Your task to perform on an android device: Play the new Selena Gomez video on YouTube Image 0: 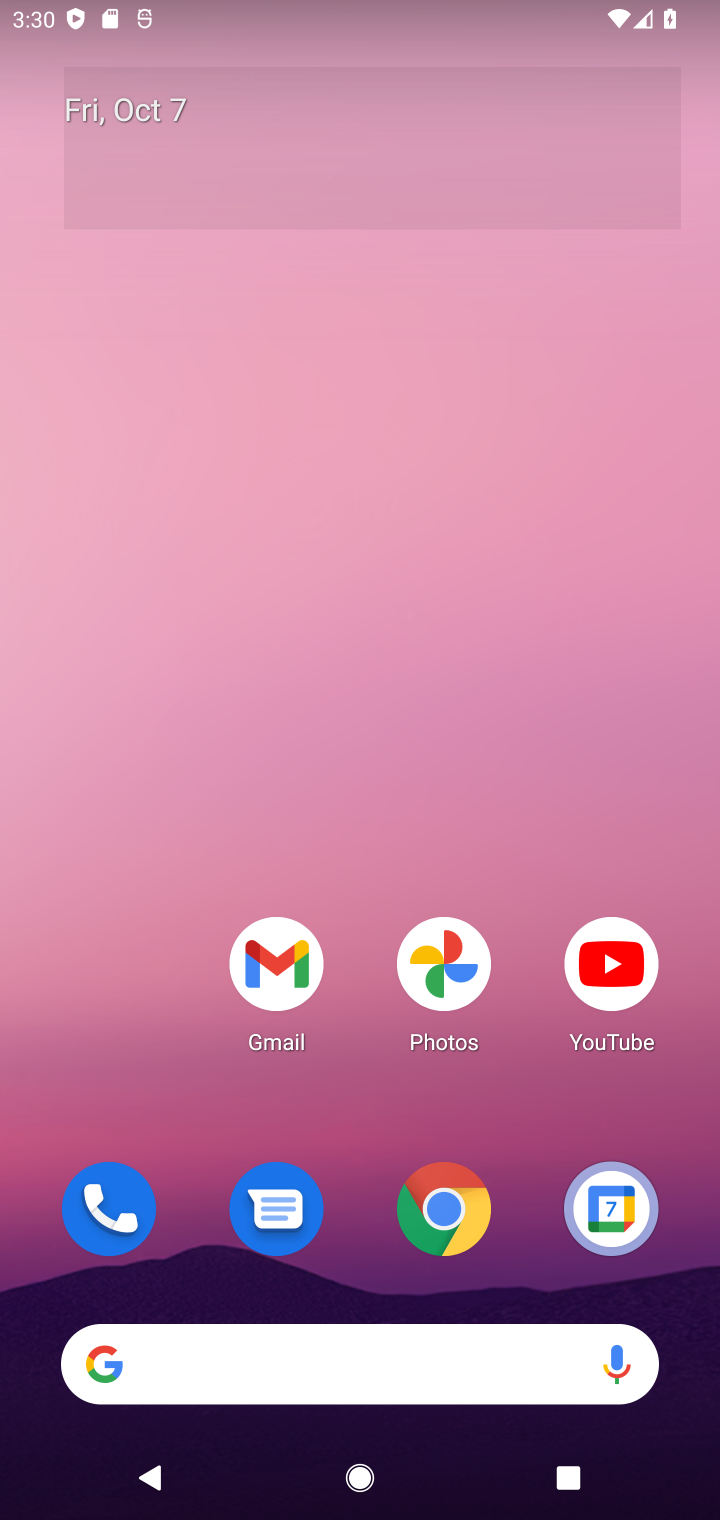
Step 0: press home button
Your task to perform on an android device: Play the new Selena Gomez video on YouTube Image 1: 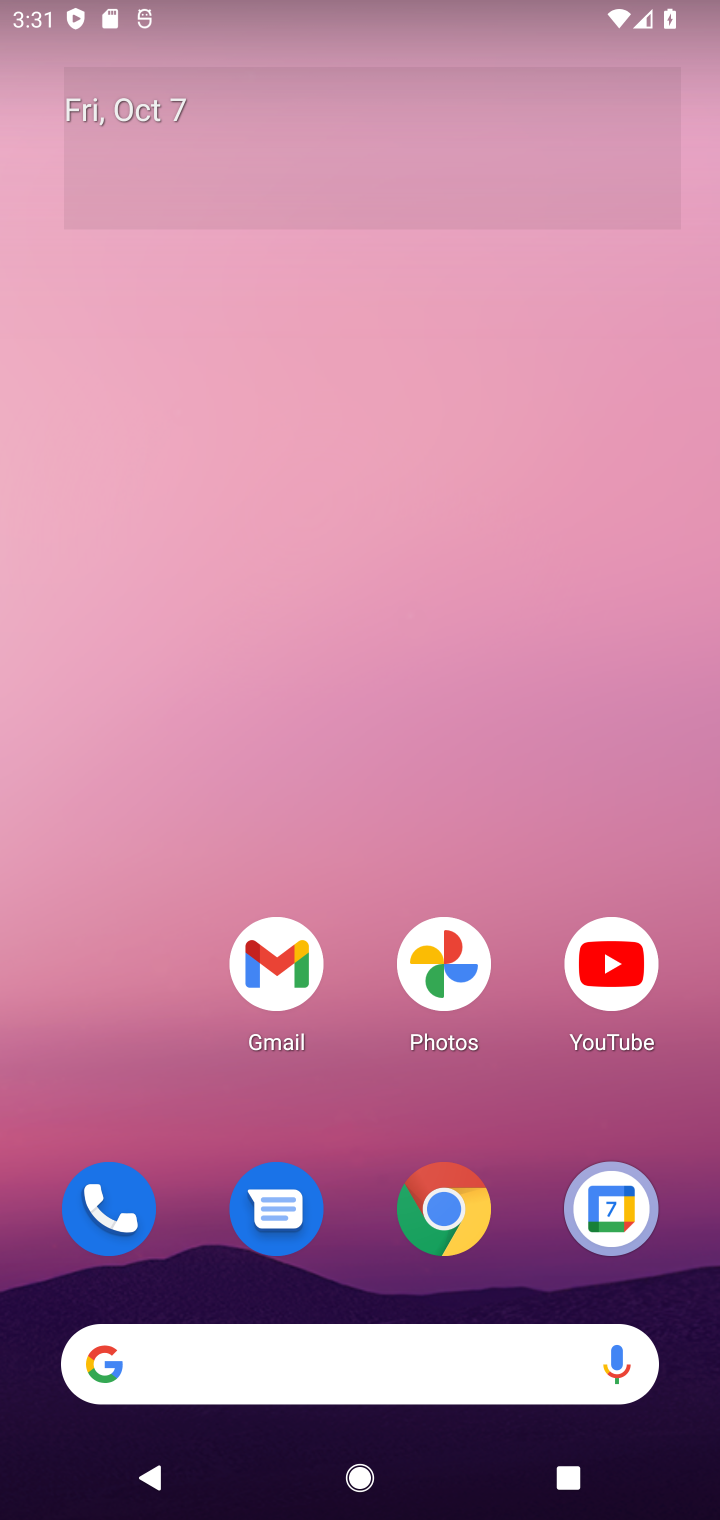
Step 1: drag from (145, 1093) to (102, 137)
Your task to perform on an android device: Play the new Selena Gomez video on YouTube Image 2: 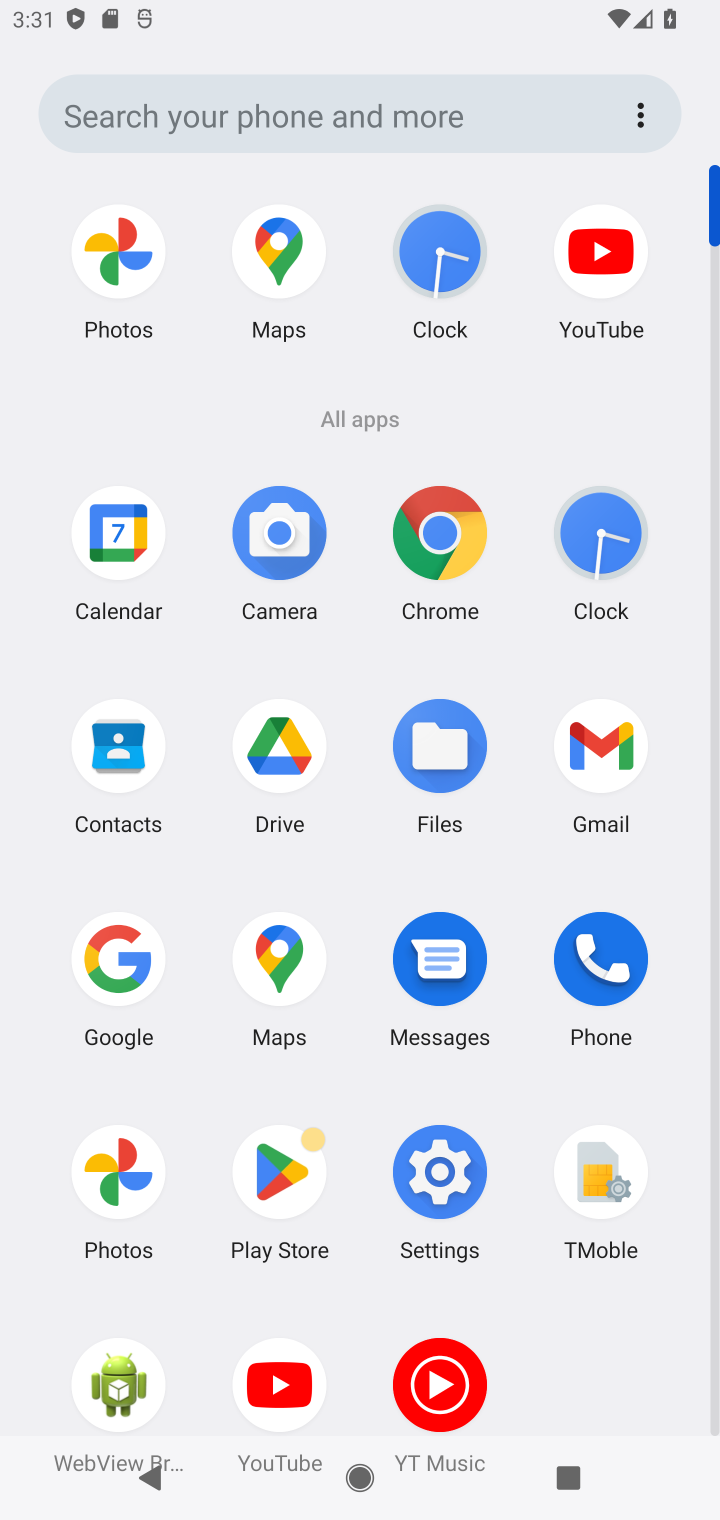
Step 2: click (609, 273)
Your task to perform on an android device: Play the new Selena Gomez video on YouTube Image 3: 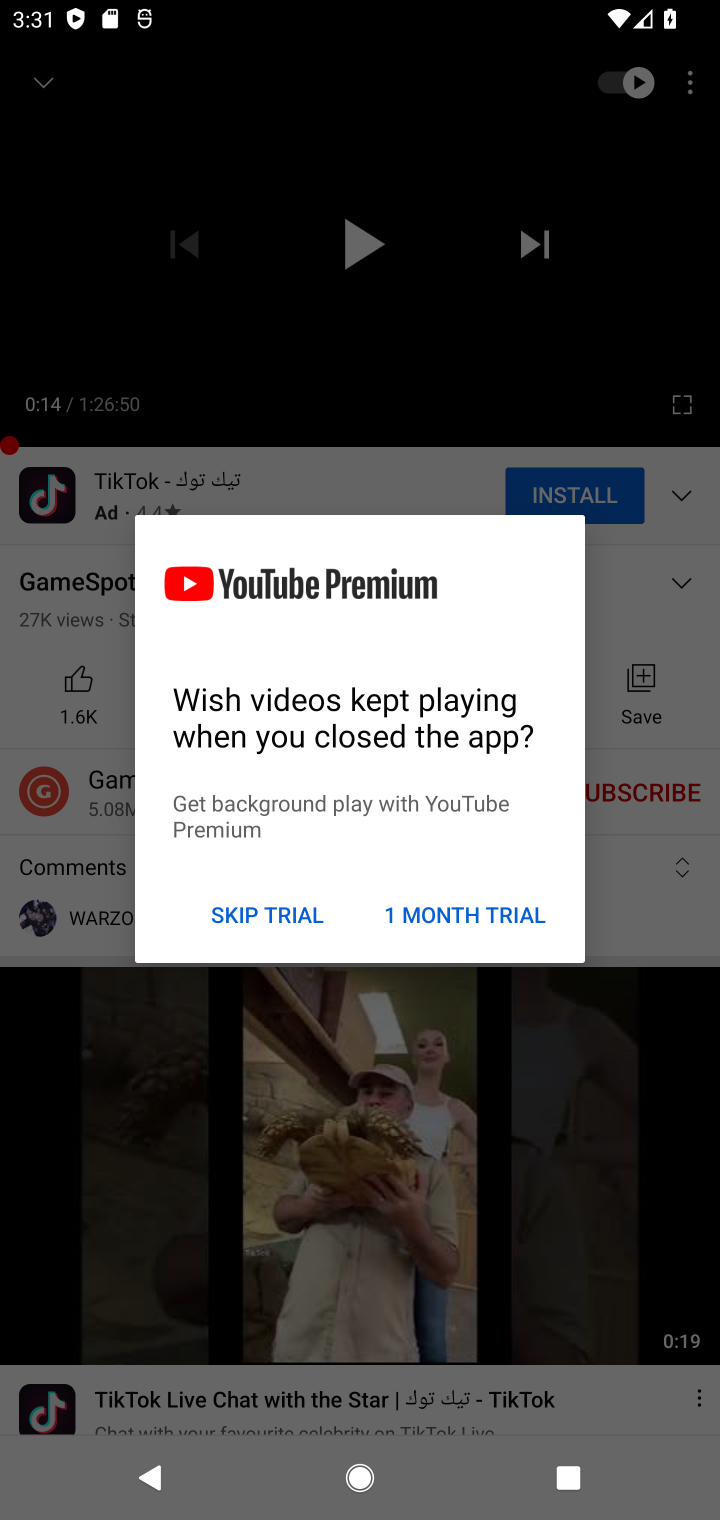
Step 3: click (273, 919)
Your task to perform on an android device: Play the new Selena Gomez video on YouTube Image 4: 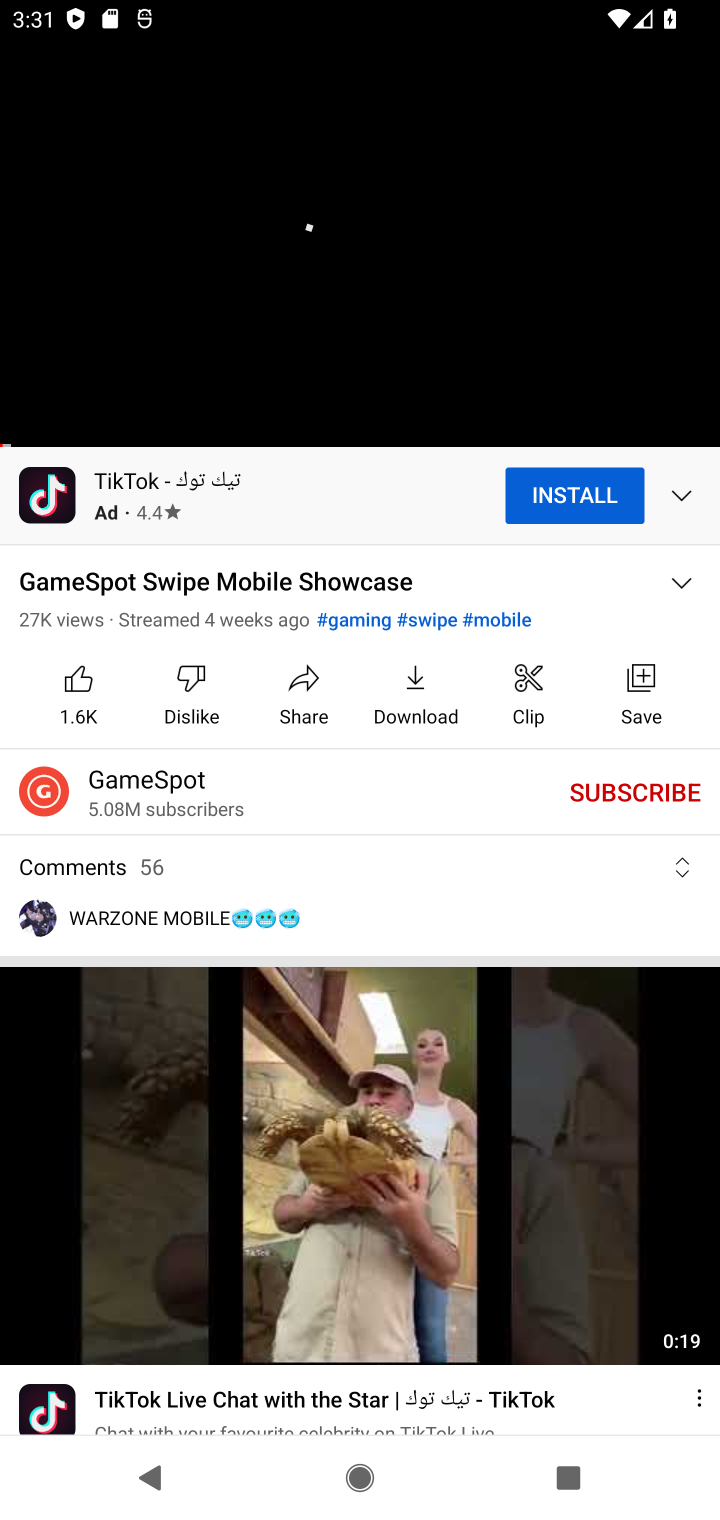
Step 4: press back button
Your task to perform on an android device: Play the new Selena Gomez video on YouTube Image 5: 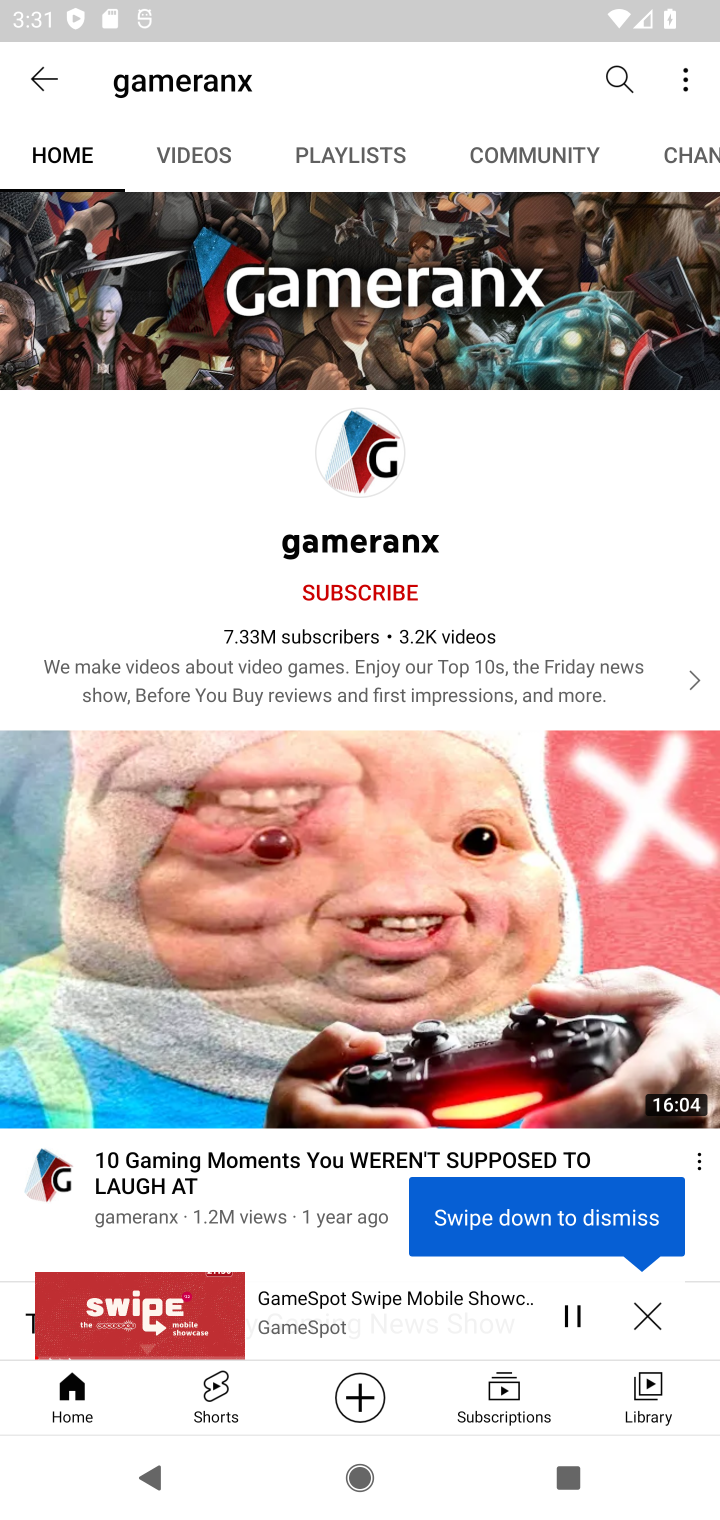
Step 5: click (613, 76)
Your task to perform on an android device: Play the new Selena Gomez video on YouTube Image 6: 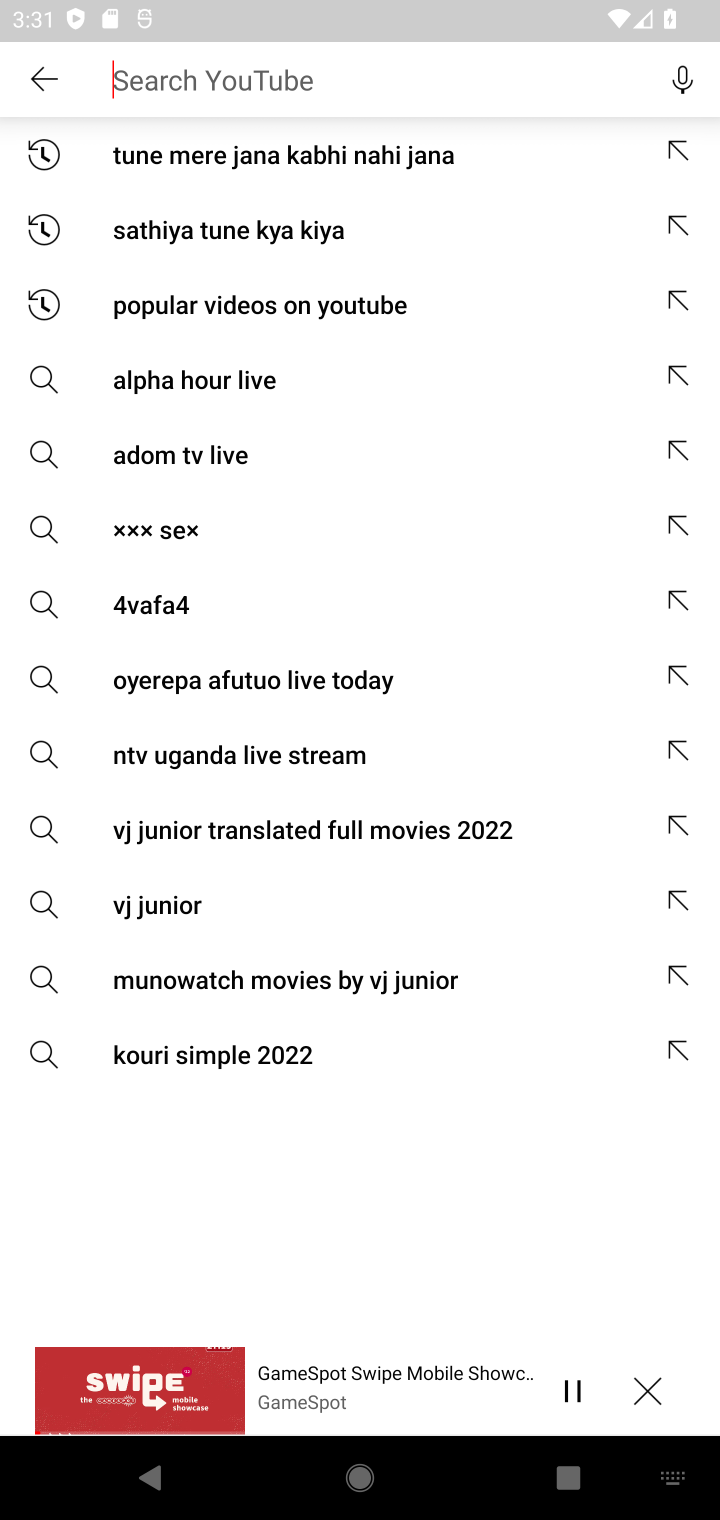
Step 6: type "Selena Gomez video"
Your task to perform on an android device: Play the new Selena Gomez video on YouTube Image 7: 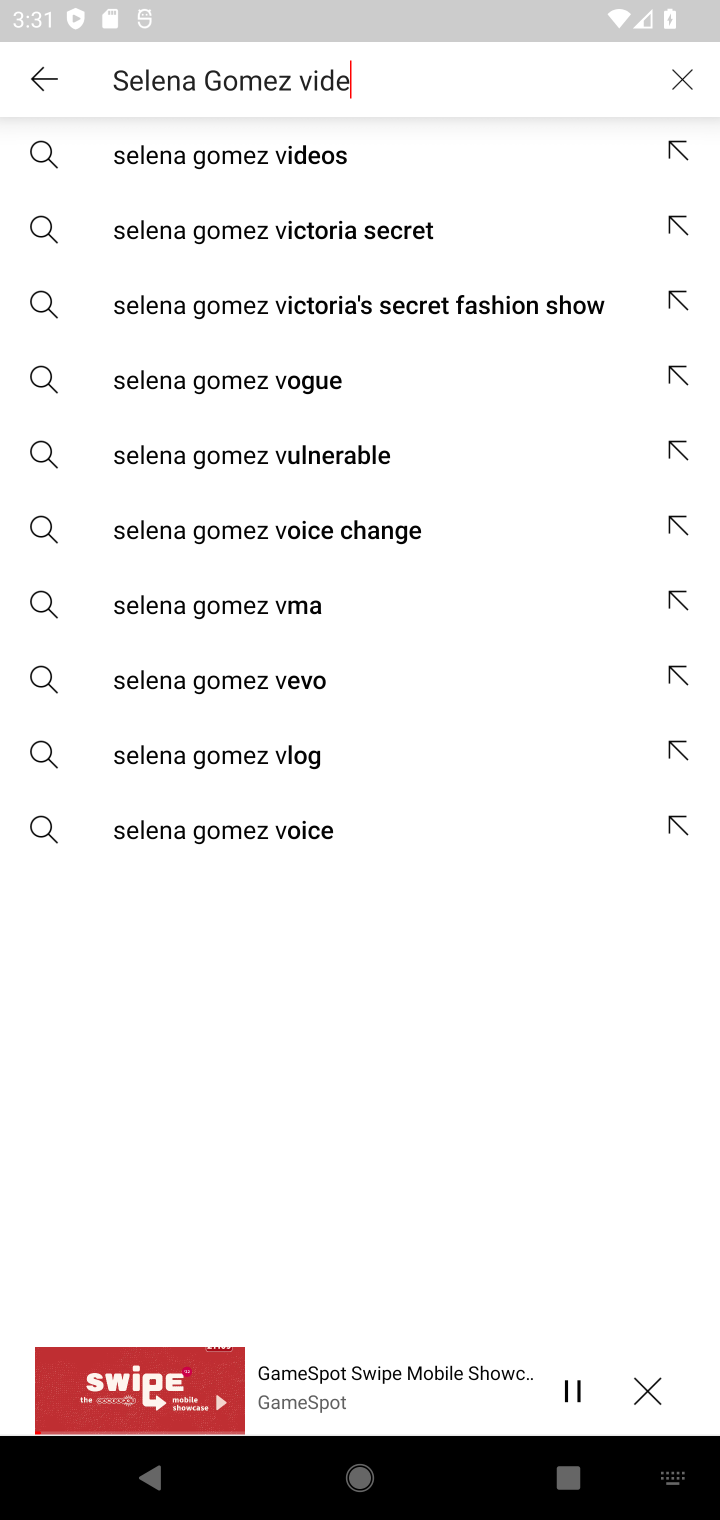
Step 7: press enter
Your task to perform on an android device: Play the new Selena Gomez video on YouTube Image 8: 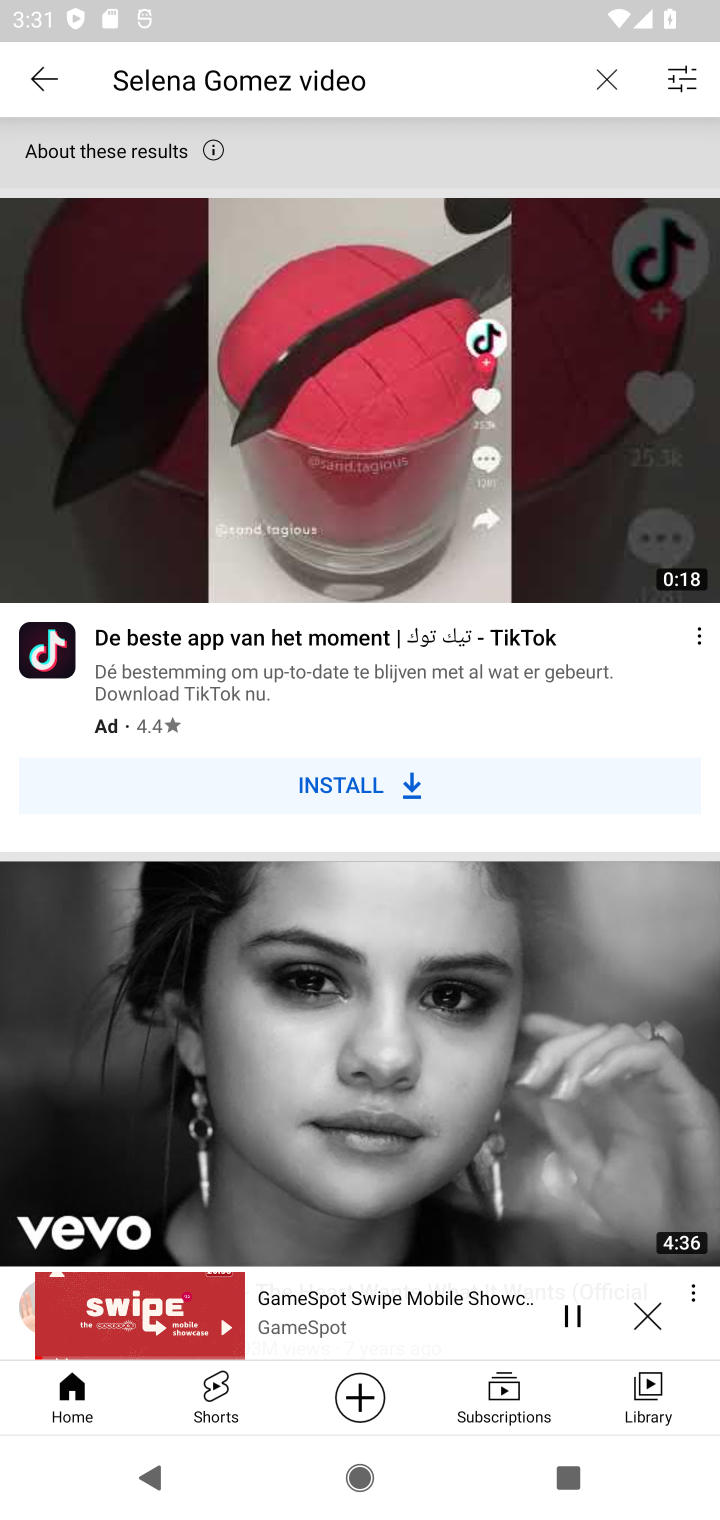
Step 8: drag from (537, 1008) to (486, 398)
Your task to perform on an android device: Play the new Selena Gomez video on YouTube Image 9: 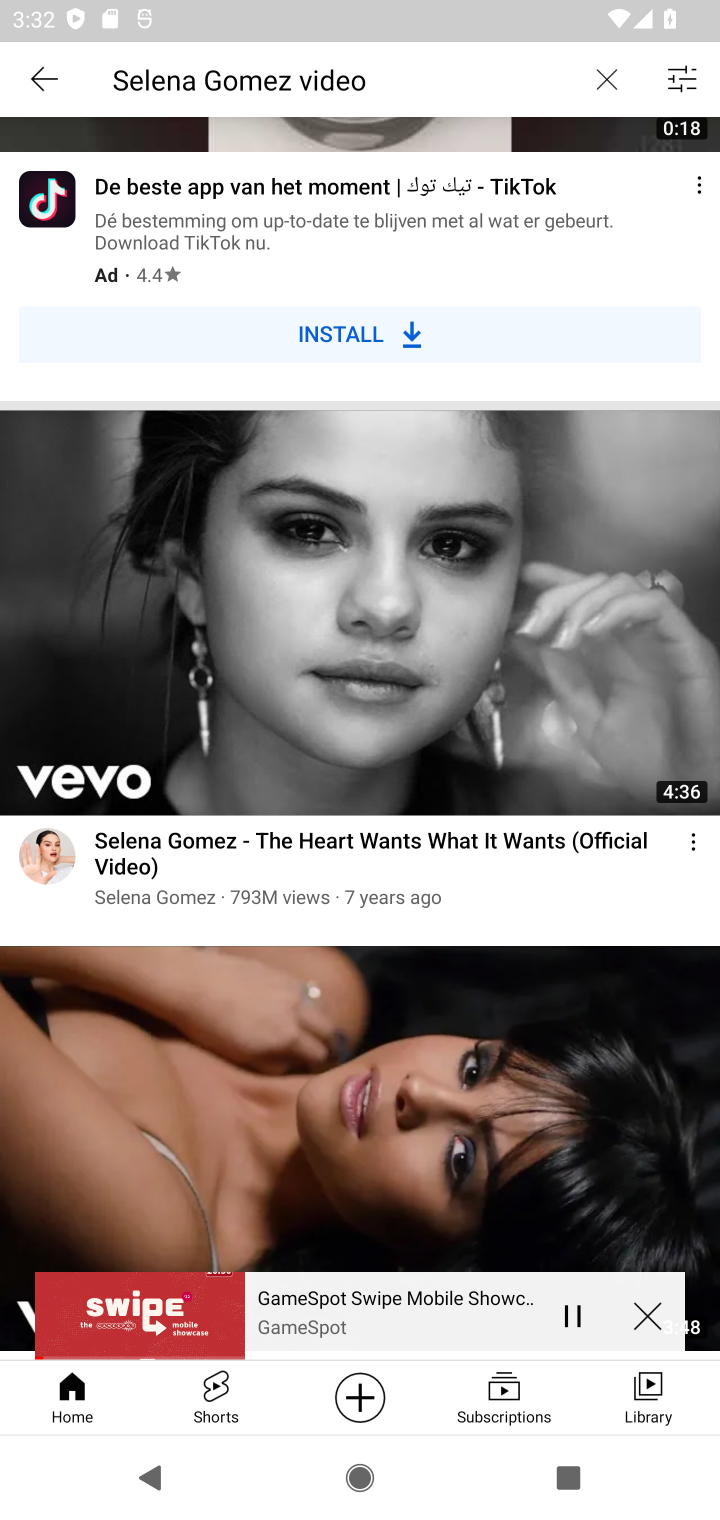
Step 9: click (408, 587)
Your task to perform on an android device: Play the new Selena Gomez video on YouTube Image 10: 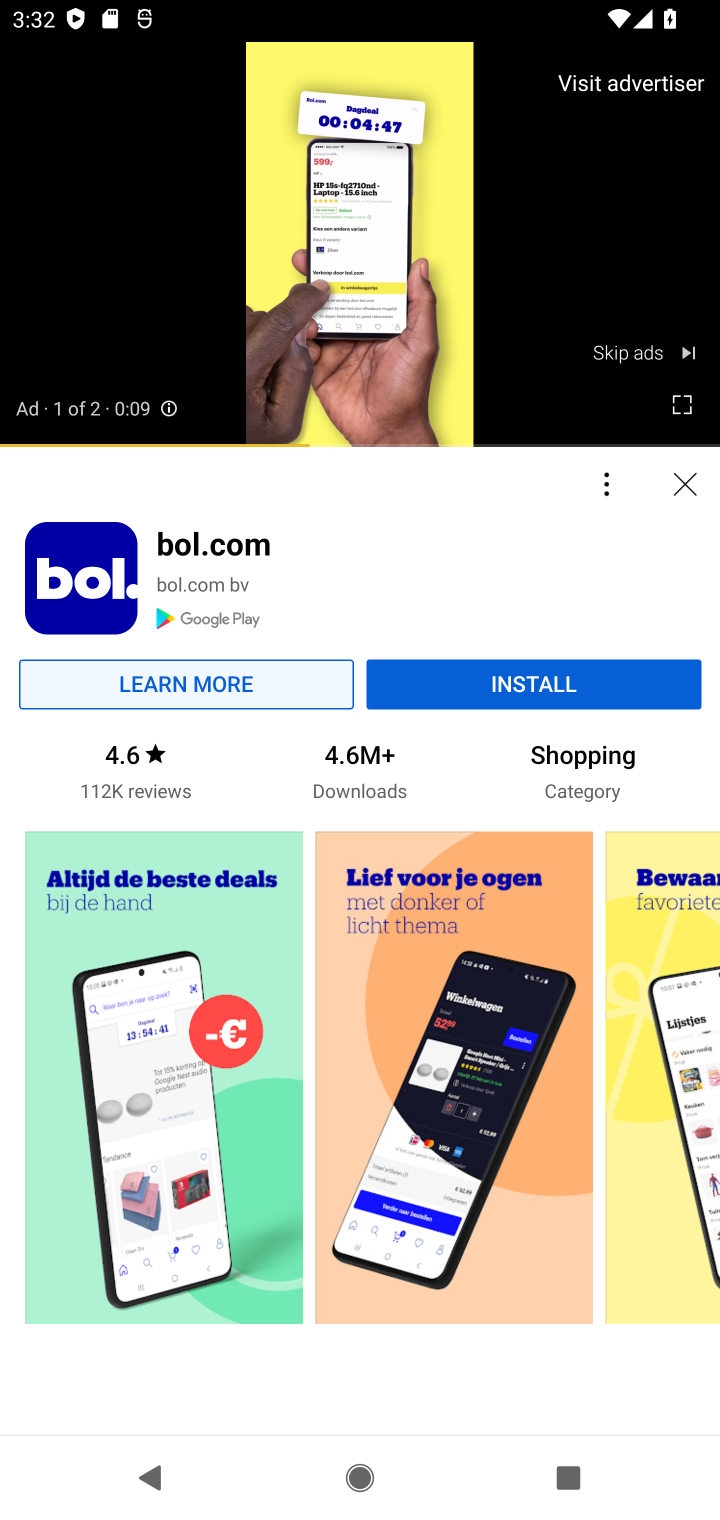
Step 10: click (629, 348)
Your task to perform on an android device: Play the new Selena Gomez video on YouTube Image 11: 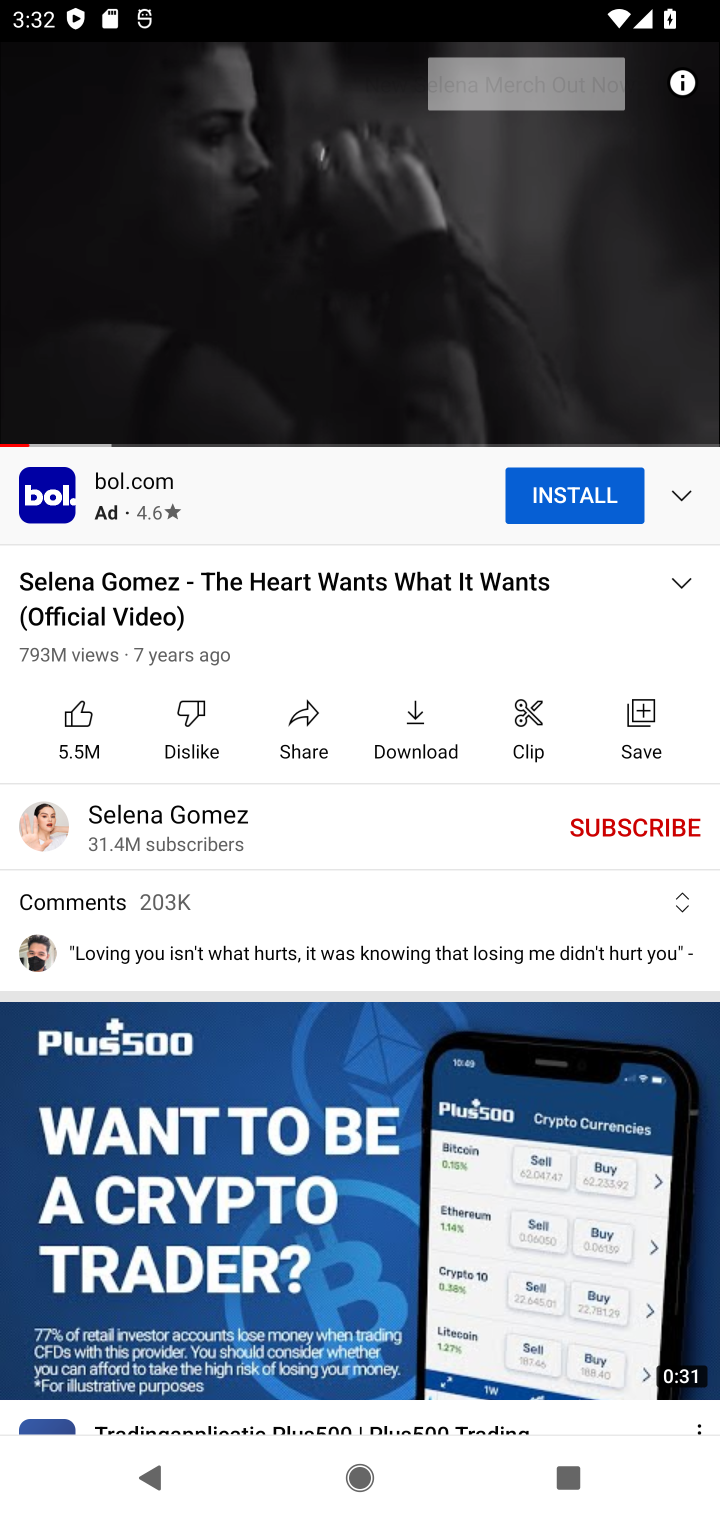
Step 11: task complete